Your task to perform on an android device: Open Youtube and go to the subscriptions tab Image 0: 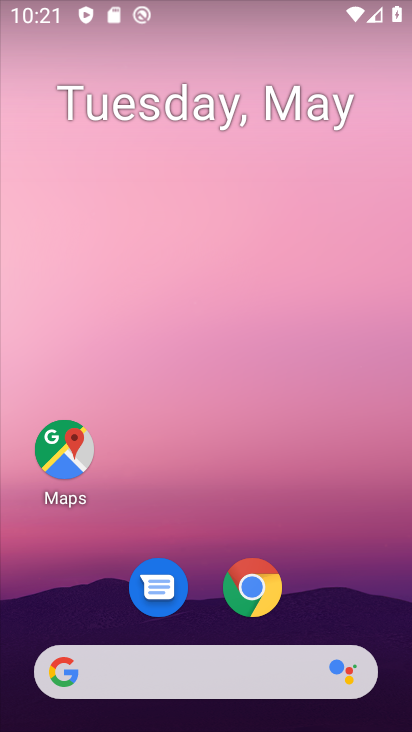
Step 0: drag from (354, 580) to (305, 95)
Your task to perform on an android device: Open Youtube and go to the subscriptions tab Image 1: 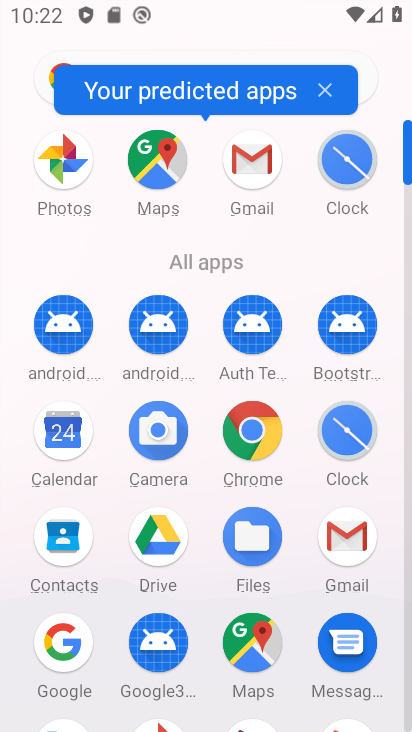
Step 1: press home button
Your task to perform on an android device: Open Youtube and go to the subscriptions tab Image 2: 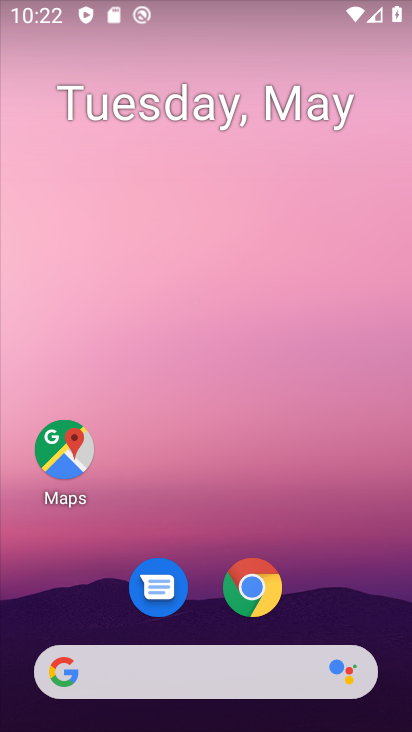
Step 2: drag from (348, 593) to (359, 194)
Your task to perform on an android device: Open Youtube and go to the subscriptions tab Image 3: 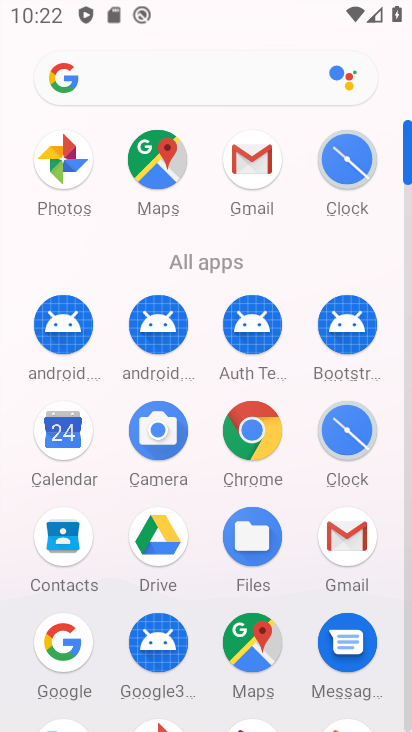
Step 3: drag from (231, 596) to (243, 154)
Your task to perform on an android device: Open Youtube and go to the subscriptions tab Image 4: 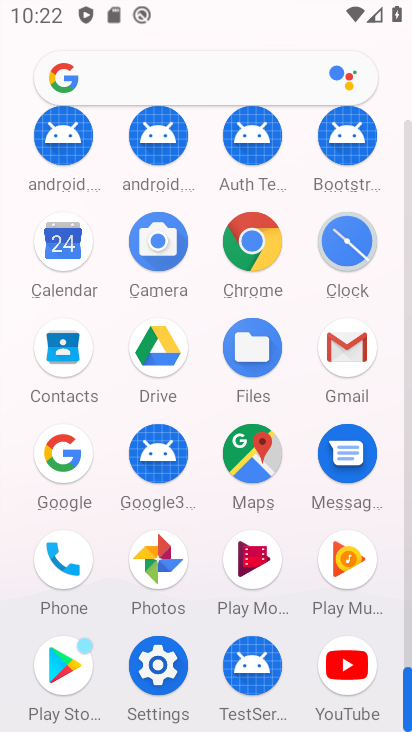
Step 4: drag from (191, 612) to (220, 272)
Your task to perform on an android device: Open Youtube and go to the subscriptions tab Image 5: 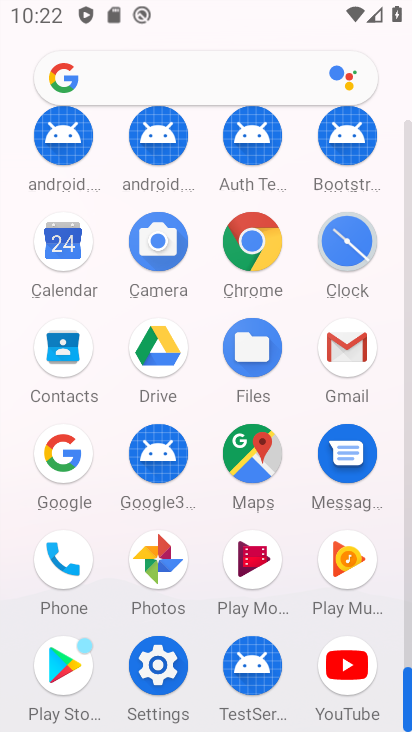
Step 5: click (339, 663)
Your task to perform on an android device: Open Youtube and go to the subscriptions tab Image 6: 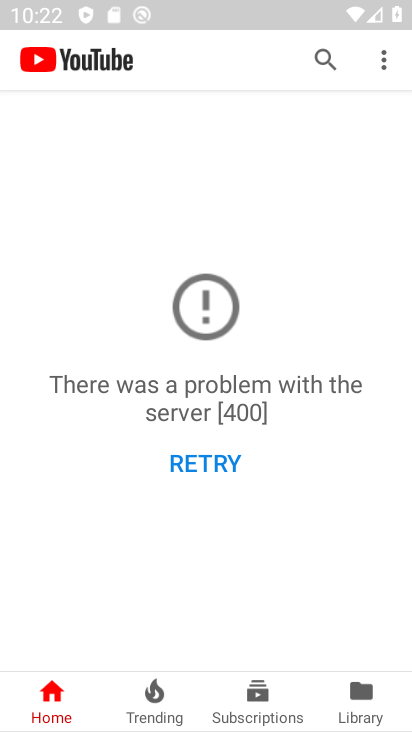
Step 6: click (271, 693)
Your task to perform on an android device: Open Youtube and go to the subscriptions tab Image 7: 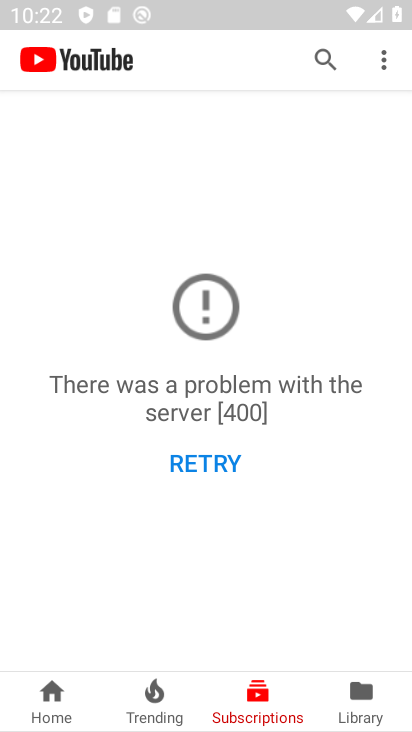
Step 7: task complete